Your task to perform on an android device: change the clock style Image 0: 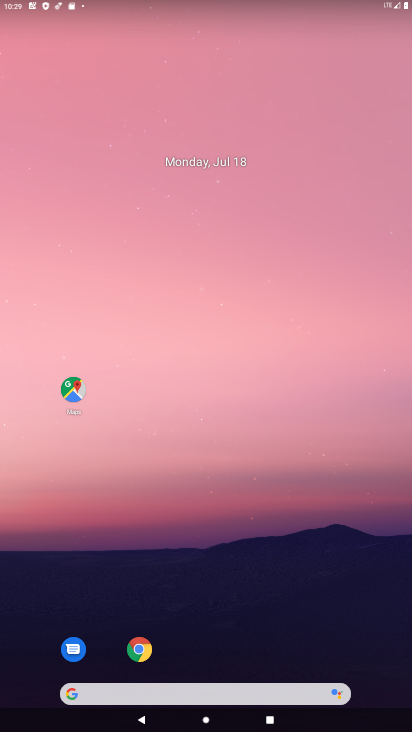
Step 0: drag from (179, 725) to (235, 4)
Your task to perform on an android device: change the clock style Image 1: 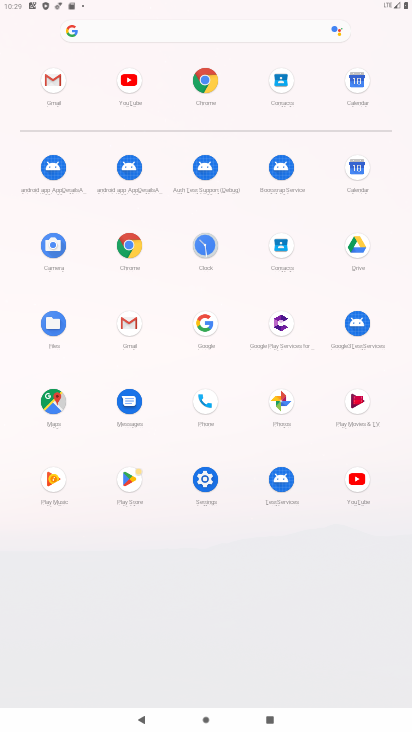
Step 1: click (213, 251)
Your task to perform on an android device: change the clock style Image 2: 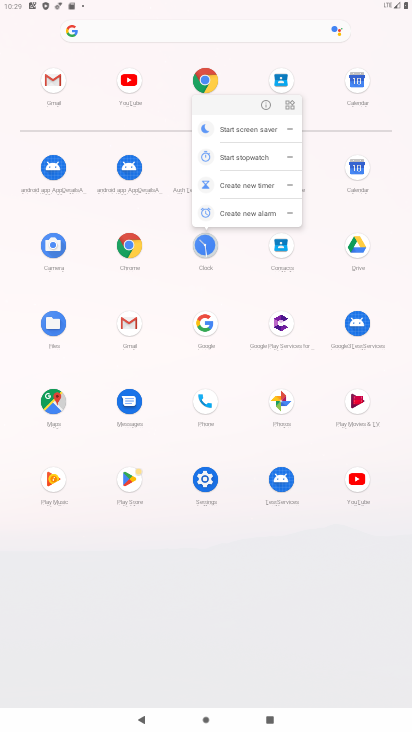
Step 2: click (214, 251)
Your task to perform on an android device: change the clock style Image 3: 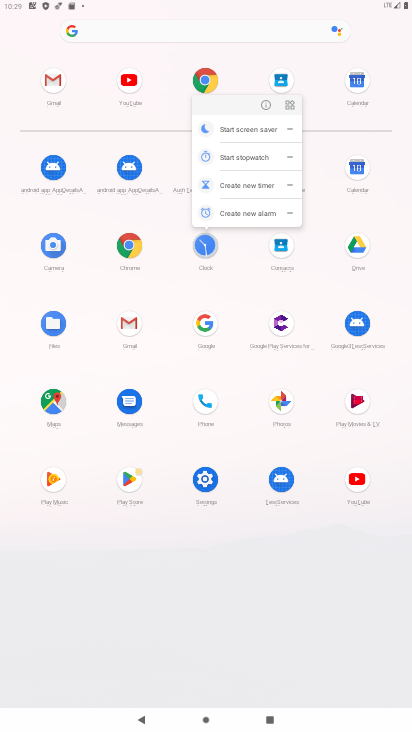
Step 3: click (214, 251)
Your task to perform on an android device: change the clock style Image 4: 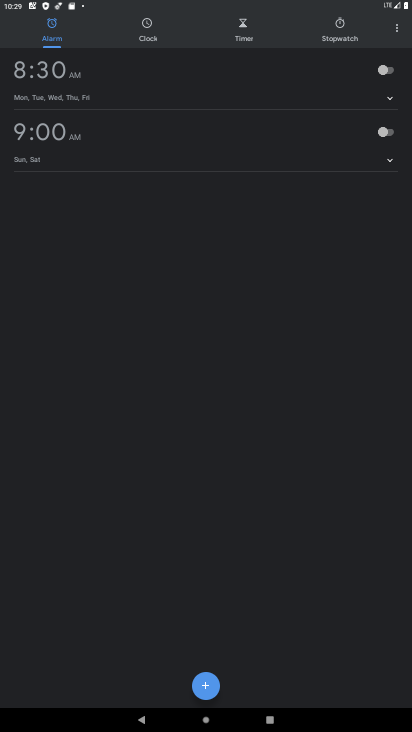
Step 4: click (397, 26)
Your task to perform on an android device: change the clock style Image 5: 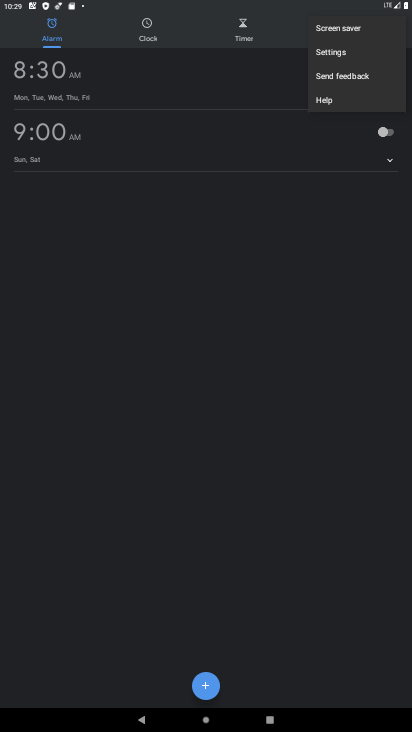
Step 5: click (361, 54)
Your task to perform on an android device: change the clock style Image 6: 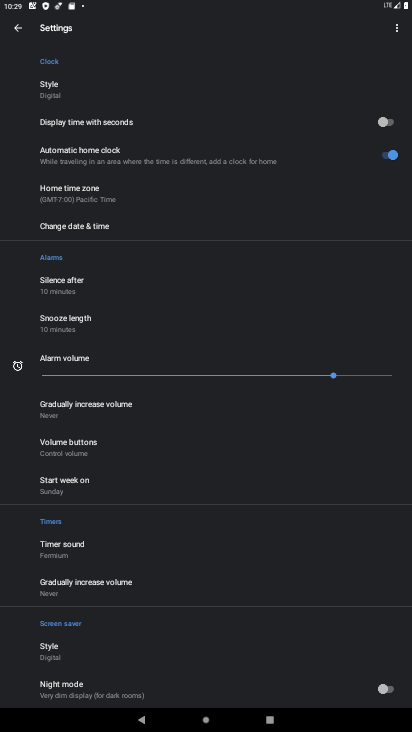
Step 6: click (61, 95)
Your task to perform on an android device: change the clock style Image 7: 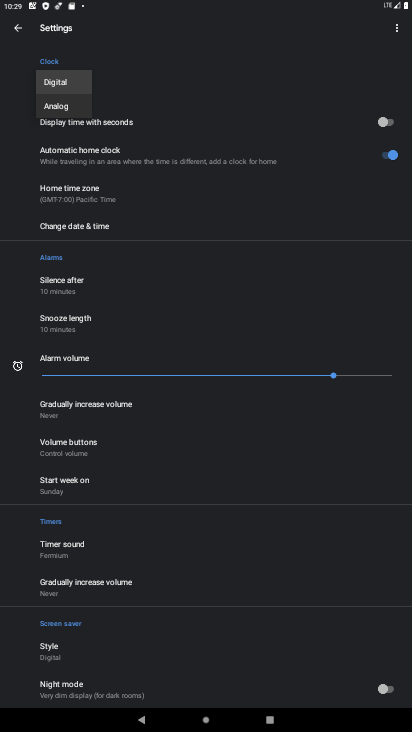
Step 7: click (71, 103)
Your task to perform on an android device: change the clock style Image 8: 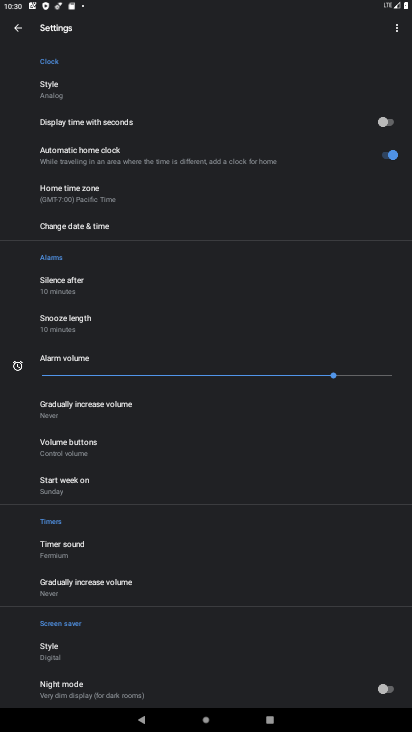
Step 8: task complete